Your task to perform on an android device: Go to Yahoo.com Image 0: 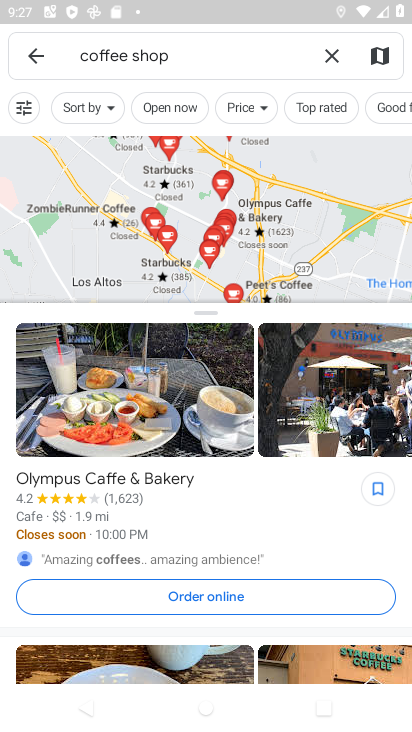
Step 0: press home button
Your task to perform on an android device: Go to Yahoo.com Image 1: 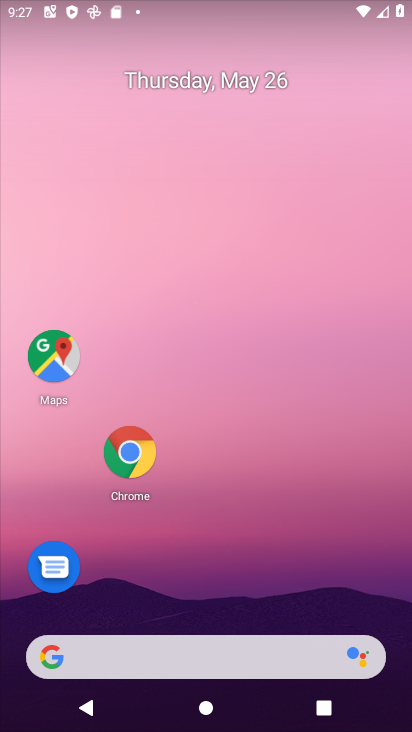
Step 1: click (130, 454)
Your task to perform on an android device: Go to Yahoo.com Image 2: 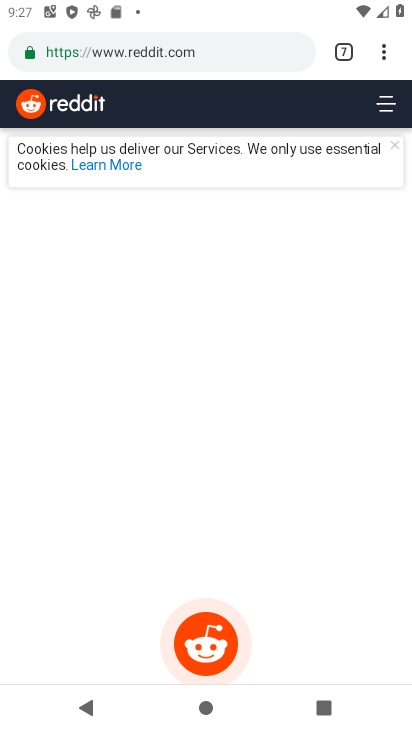
Step 2: drag from (383, 49) to (254, 99)
Your task to perform on an android device: Go to Yahoo.com Image 3: 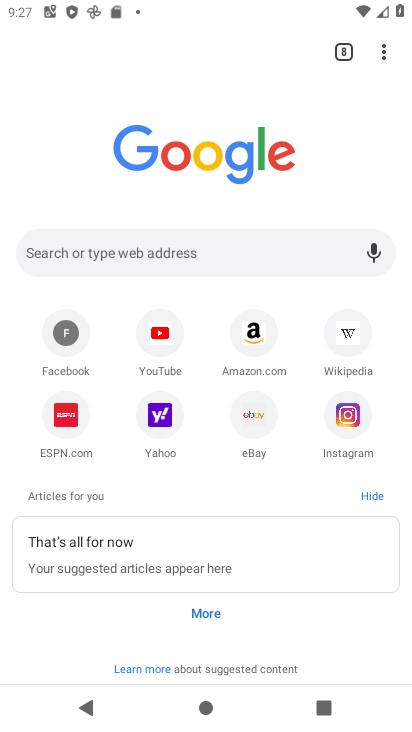
Step 3: click (163, 418)
Your task to perform on an android device: Go to Yahoo.com Image 4: 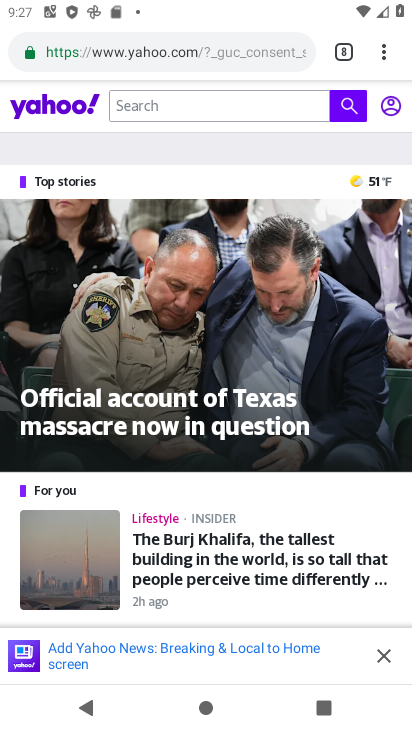
Step 4: task complete